Your task to perform on an android device: change your default location settings in chrome Image 0: 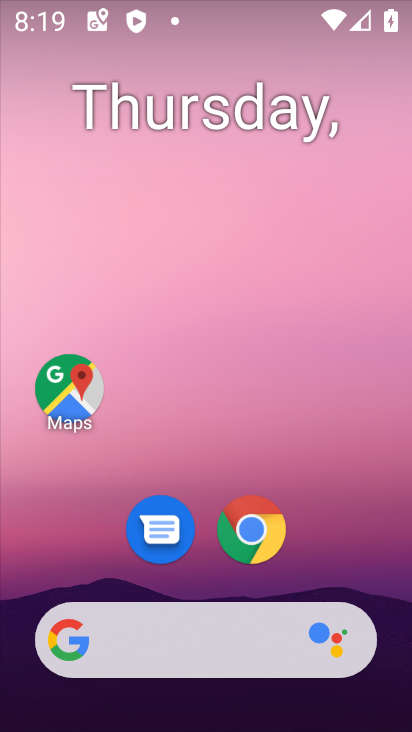
Step 0: press home button
Your task to perform on an android device: change your default location settings in chrome Image 1: 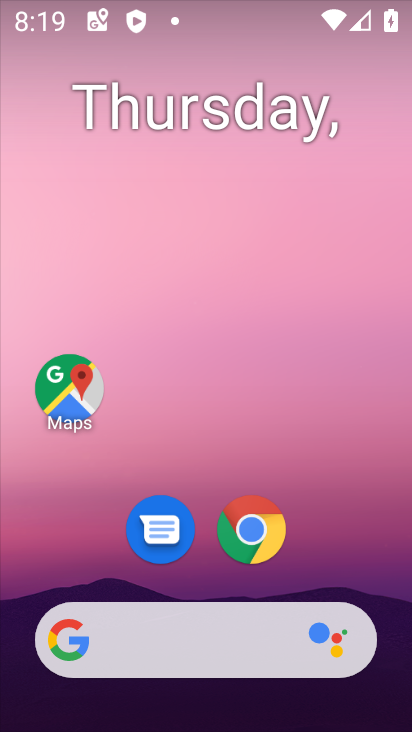
Step 1: click (248, 548)
Your task to perform on an android device: change your default location settings in chrome Image 2: 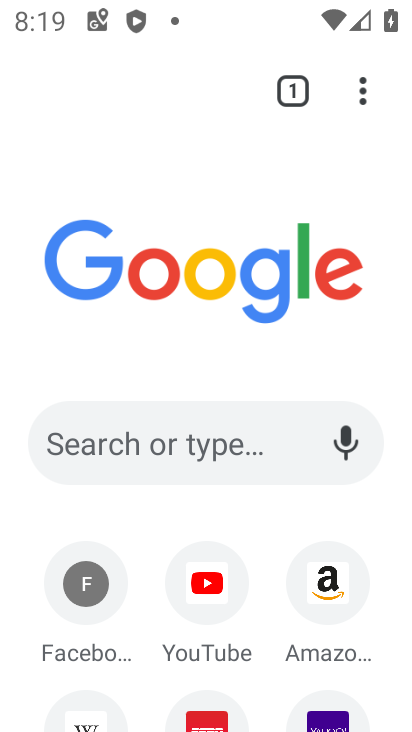
Step 2: drag from (363, 102) to (227, 542)
Your task to perform on an android device: change your default location settings in chrome Image 3: 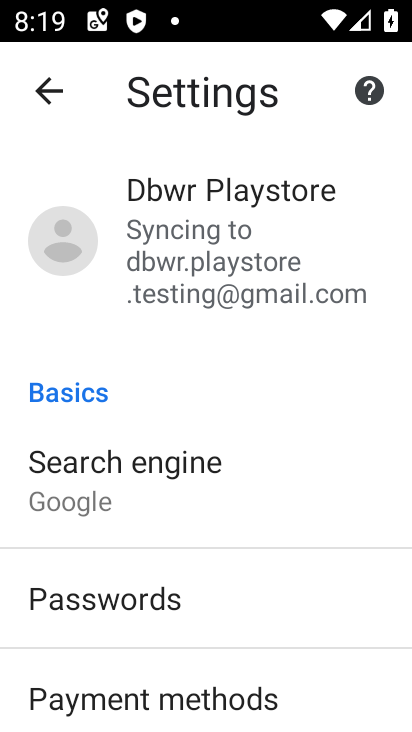
Step 3: drag from (182, 665) to (345, 149)
Your task to perform on an android device: change your default location settings in chrome Image 4: 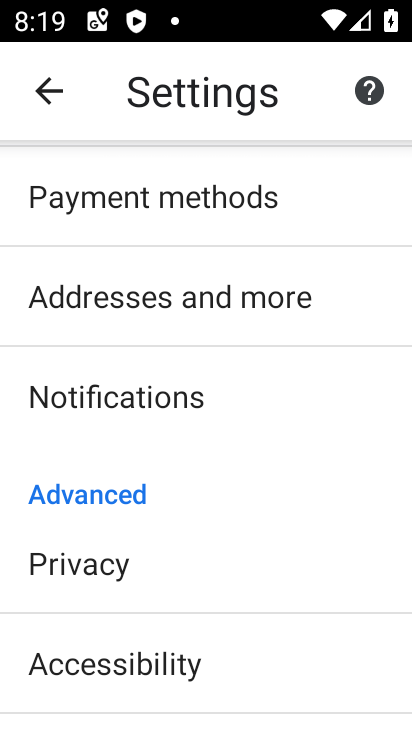
Step 4: drag from (178, 616) to (306, 237)
Your task to perform on an android device: change your default location settings in chrome Image 5: 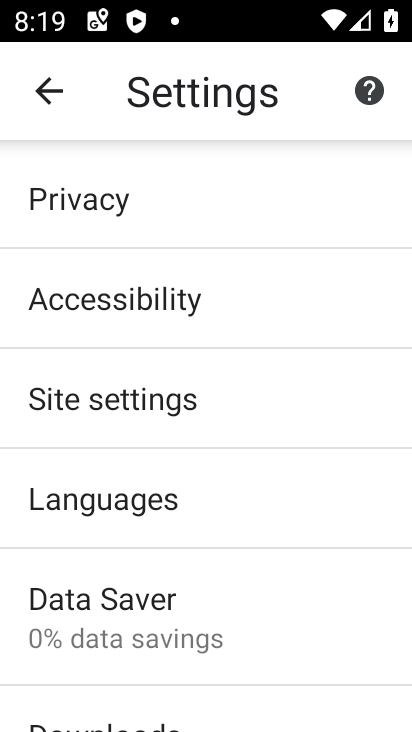
Step 5: click (175, 404)
Your task to perform on an android device: change your default location settings in chrome Image 6: 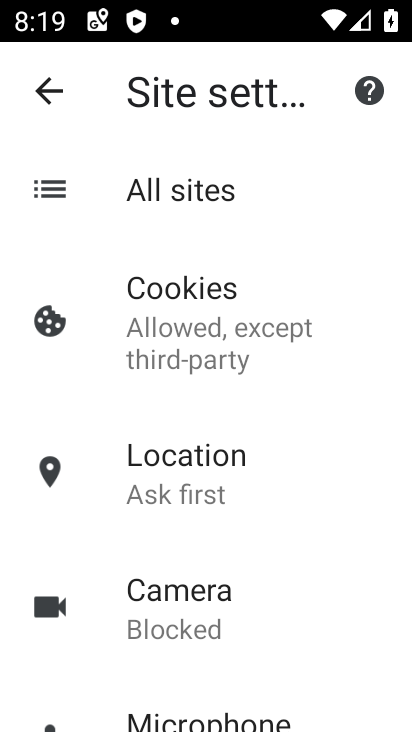
Step 6: click (200, 481)
Your task to perform on an android device: change your default location settings in chrome Image 7: 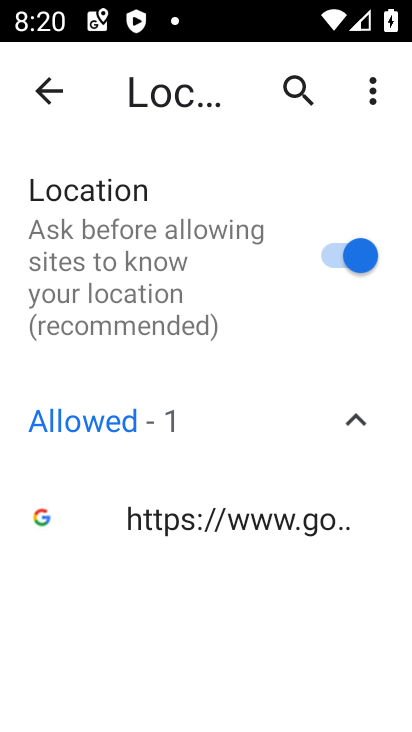
Step 7: click (332, 256)
Your task to perform on an android device: change your default location settings in chrome Image 8: 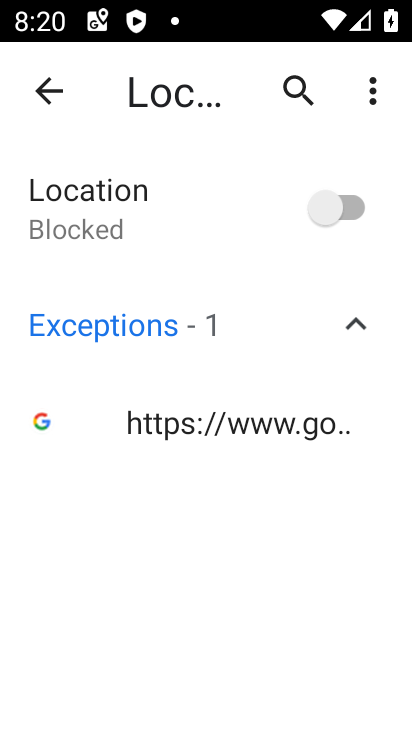
Step 8: task complete